Your task to perform on an android device: turn off smart reply in the gmail app Image 0: 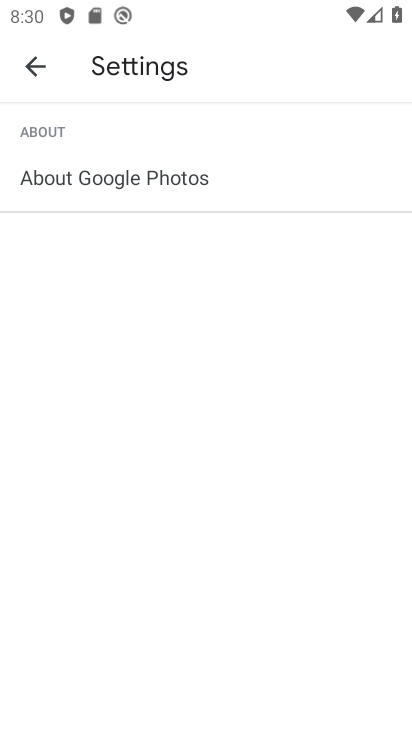
Step 0: press home button
Your task to perform on an android device: turn off smart reply in the gmail app Image 1: 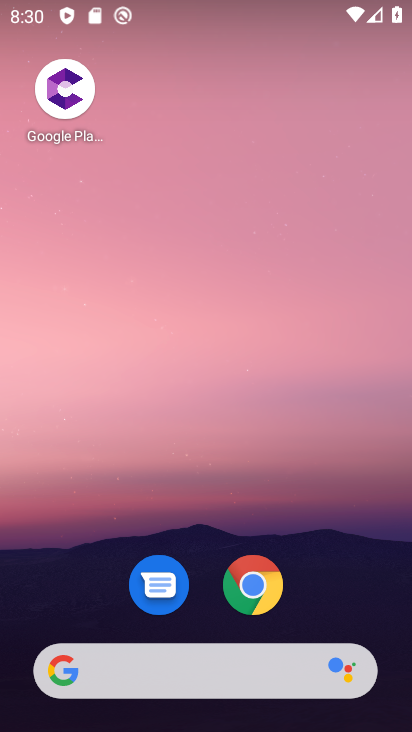
Step 1: drag from (238, 637) to (285, 86)
Your task to perform on an android device: turn off smart reply in the gmail app Image 2: 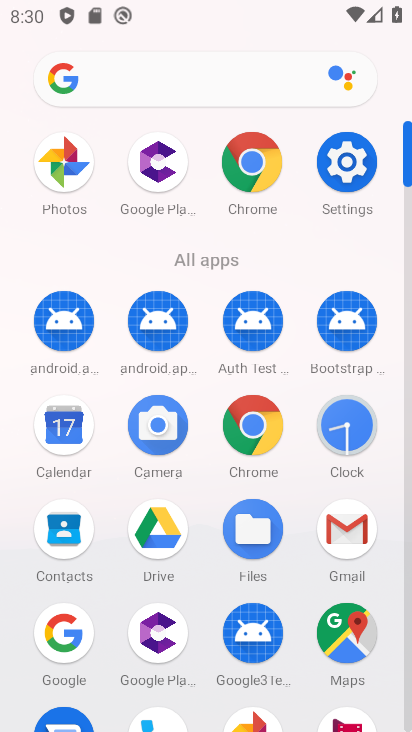
Step 2: click (350, 530)
Your task to perform on an android device: turn off smart reply in the gmail app Image 3: 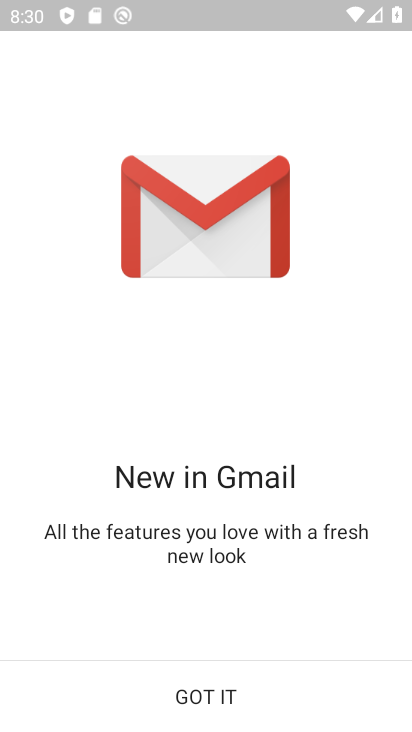
Step 3: click (218, 700)
Your task to perform on an android device: turn off smart reply in the gmail app Image 4: 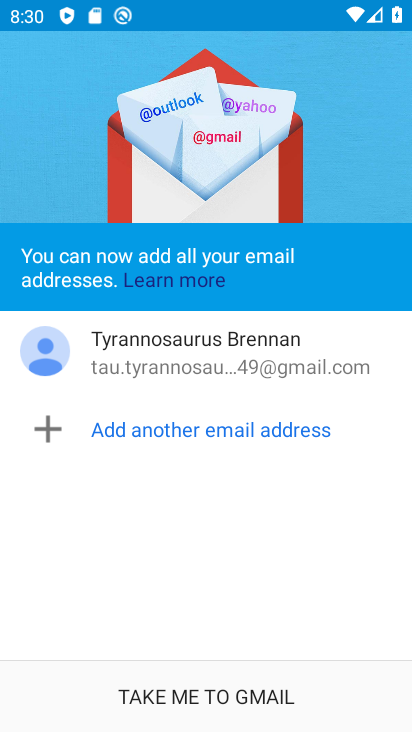
Step 4: click (218, 700)
Your task to perform on an android device: turn off smart reply in the gmail app Image 5: 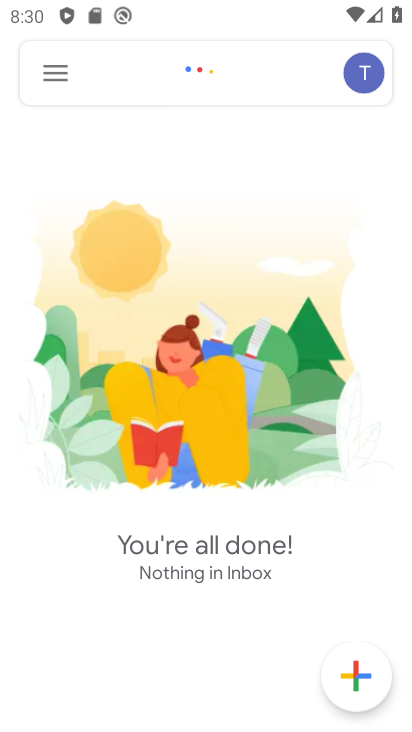
Step 5: click (55, 69)
Your task to perform on an android device: turn off smart reply in the gmail app Image 6: 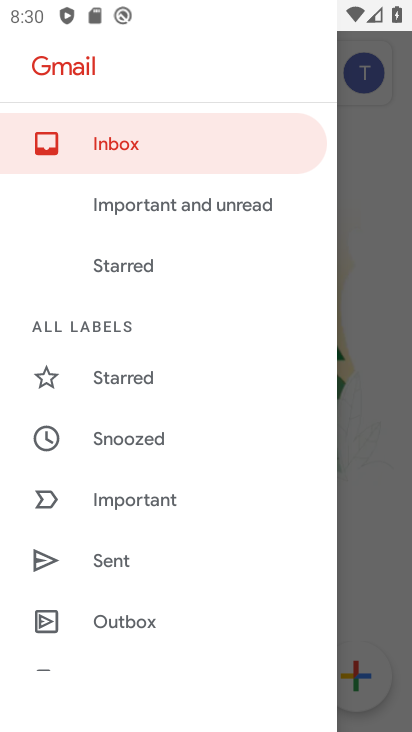
Step 6: drag from (185, 632) to (239, 73)
Your task to perform on an android device: turn off smart reply in the gmail app Image 7: 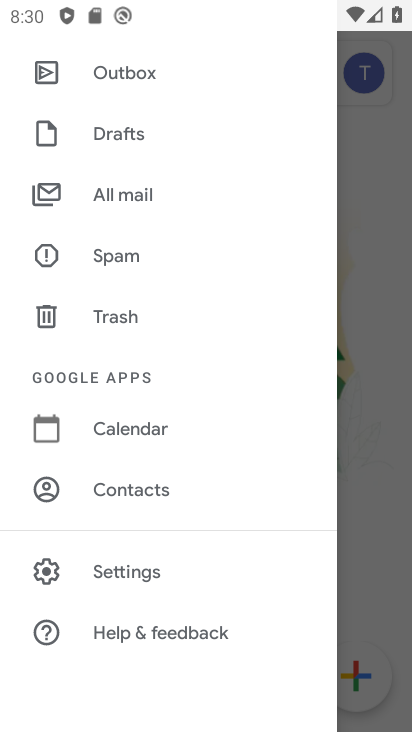
Step 7: click (159, 573)
Your task to perform on an android device: turn off smart reply in the gmail app Image 8: 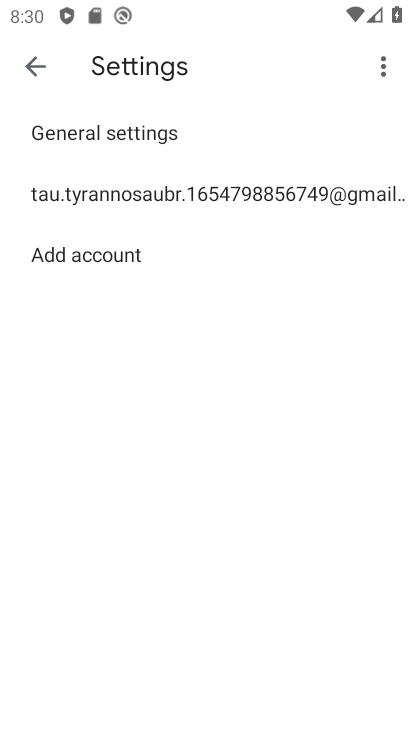
Step 8: click (238, 195)
Your task to perform on an android device: turn off smart reply in the gmail app Image 9: 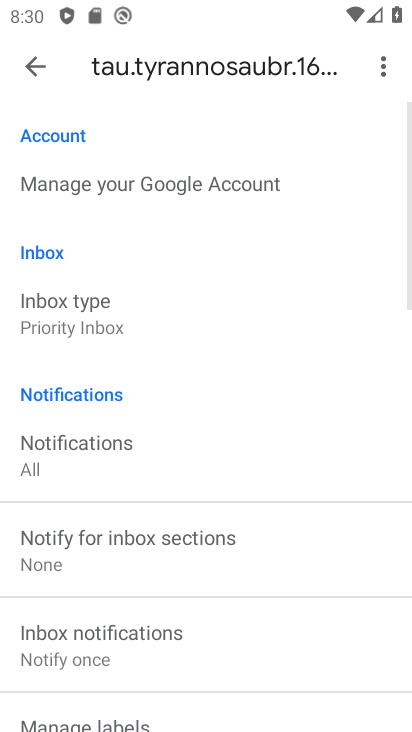
Step 9: drag from (285, 643) to (356, 218)
Your task to perform on an android device: turn off smart reply in the gmail app Image 10: 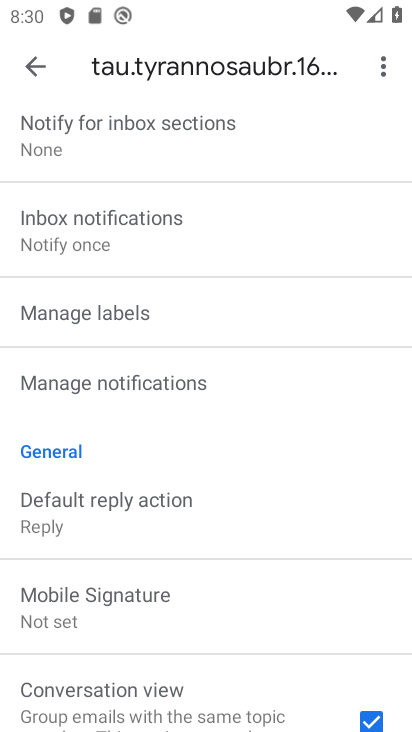
Step 10: drag from (286, 635) to (312, 226)
Your task to perform on an android device: turn off smart reply in the gmail app Image 11: 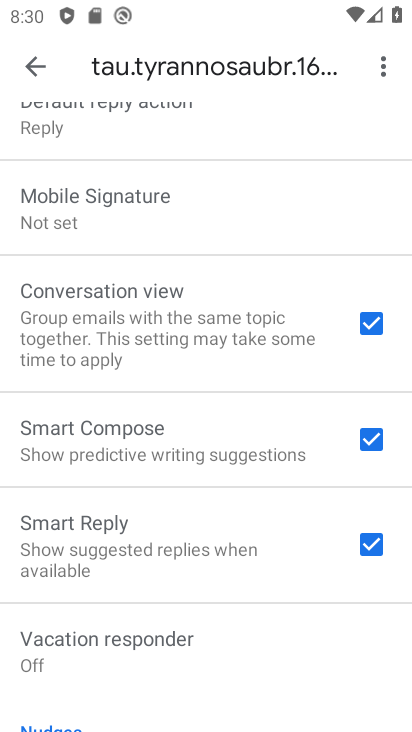
Step 11: click (364, 537)
Your task to perform on an android device: turn off smart reply in the gmail app Image 12: 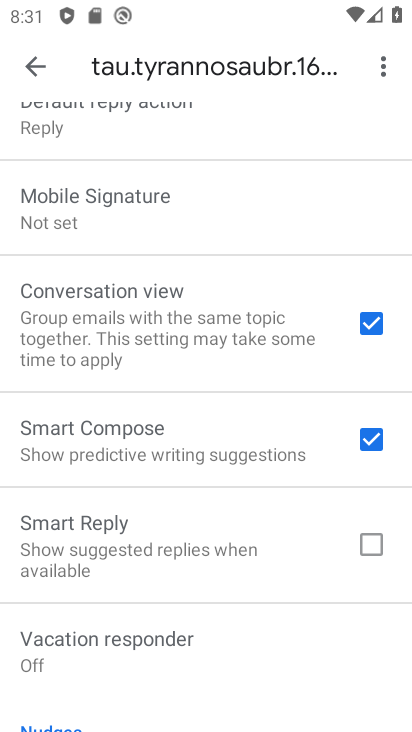
Step 12: task complete